Your task to perform on an android device: turn off data saver in the chrome app Image 0: 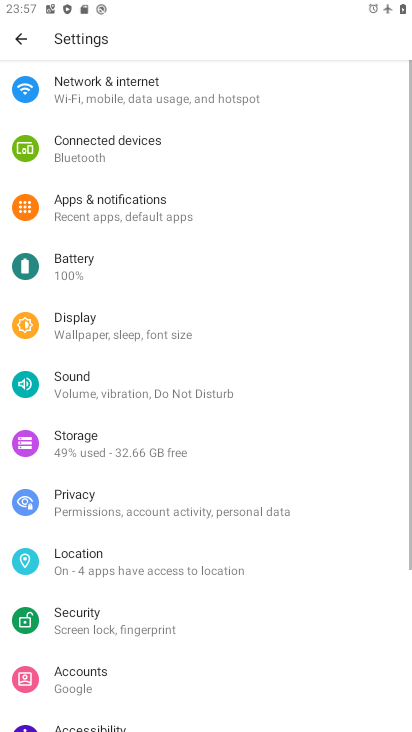
Step 0: press home button
Your task to perform on an android device: turn off data saver in the chrome app Image 1: 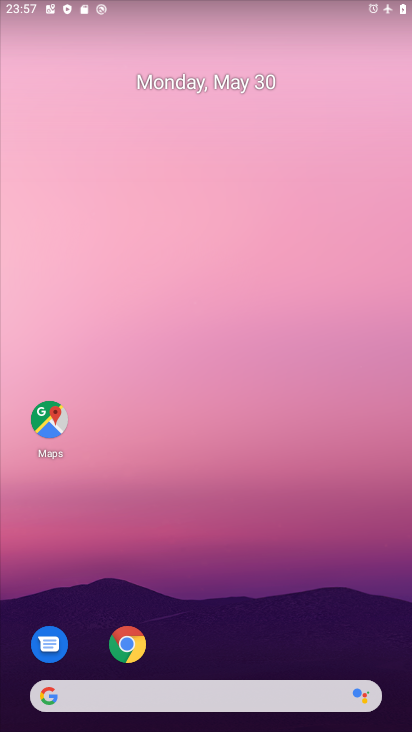
Step 1: click (128, 641)
Your task to perform on an android device: turn off data saver in the chrome app Image 2: 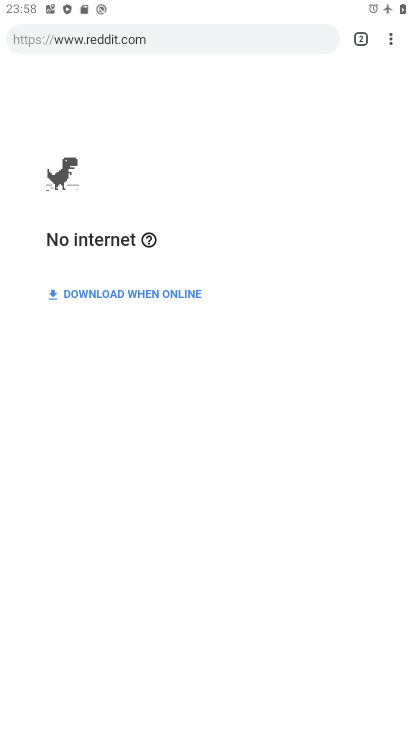
Step 2: press home button
Your task to perform on an android device: turn off data saver in the chrome app Image 3: 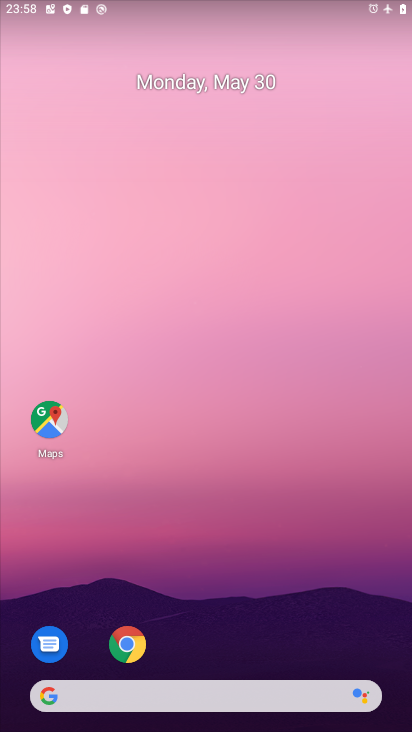
Step 3: click (126, 650)
Your task to perform on an android device: turn off data saver in the chrome app Image 4: 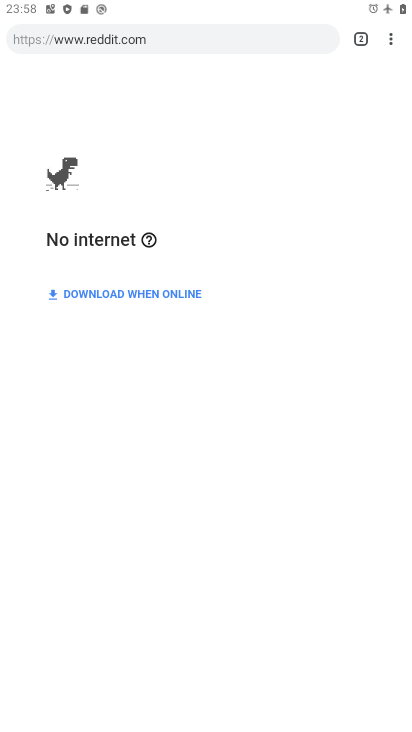
Step 4: click (394, 39)
Your task to perform on an android device: turn off data saver in the chrome app Image 5: 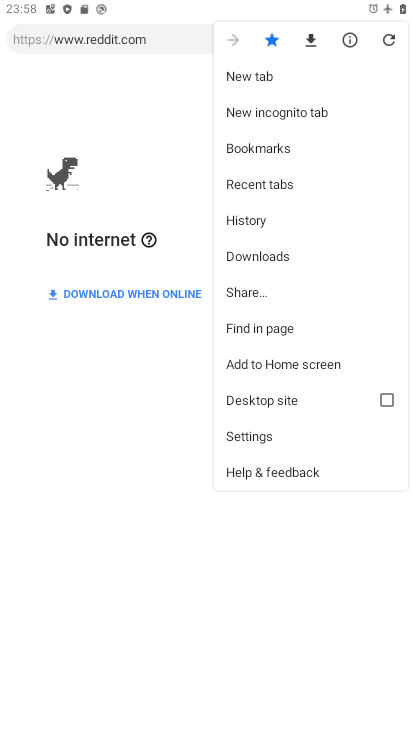
Step 5: click (267, 436)
Your task to perform on an android device: turn off data saver in the chrome app Image 6: 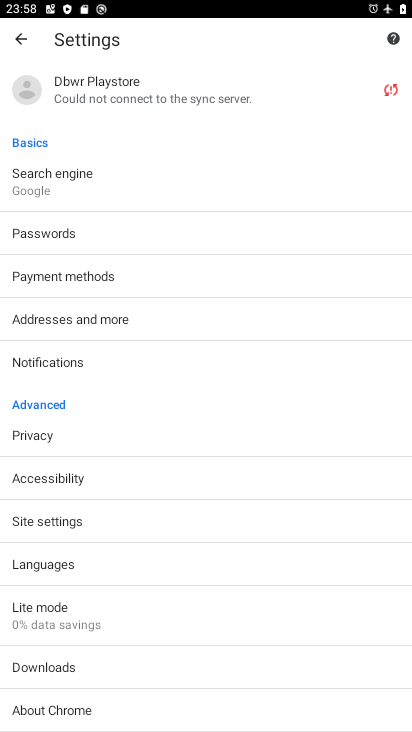
Step 6: click (59, 608)
Your task to perform on an android device: turn off data saver in the chrome app Image 7: 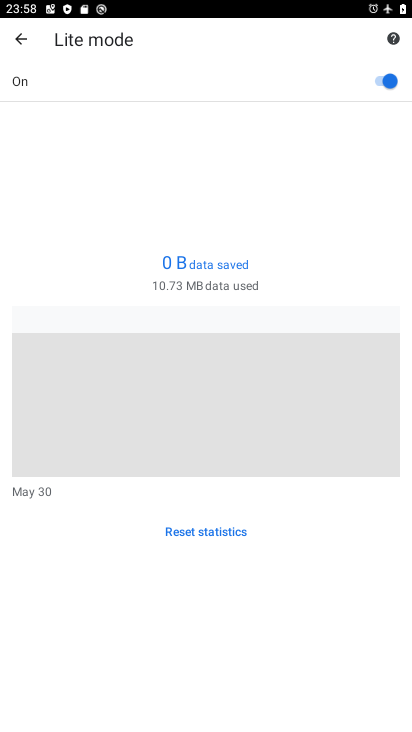
Step 7: click (377, 81)
Your task to perform on an android device: turn off data saver in the chrome app Image 8: 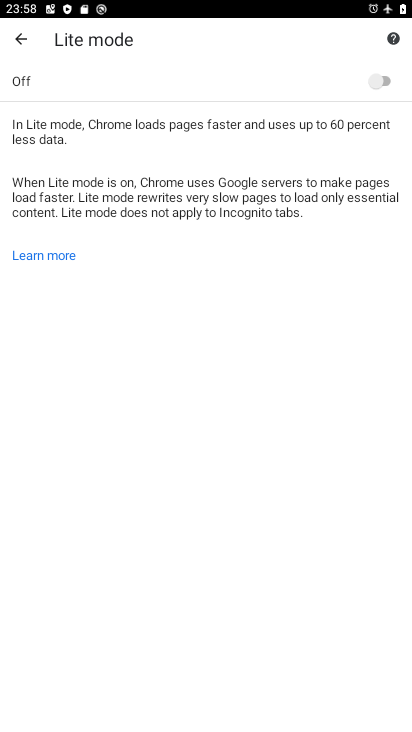
Step 8: task complete